Your task to perform on an android device: What's a good restaurant in Phoenix? Image 0: 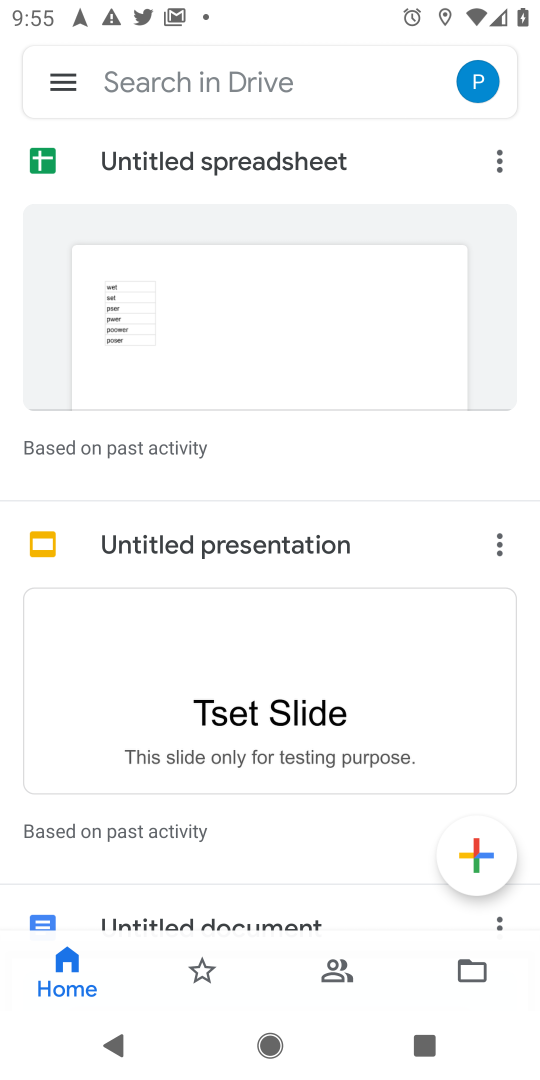
Step 0: press home button
Your task to perform on an android device: What's a good restaurant in Phoenix? Image 1: 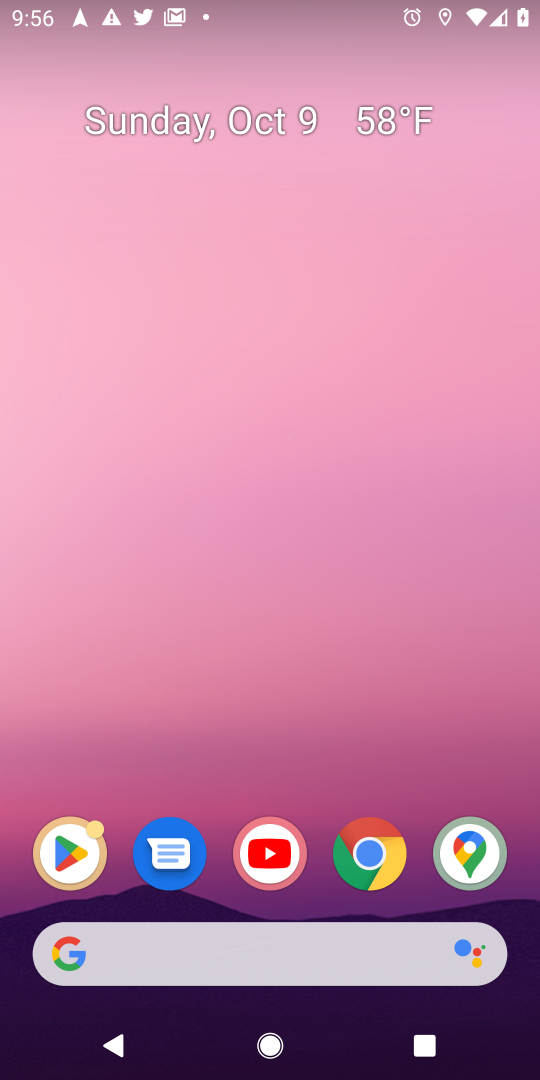
Step 1: click (371, 851)
Your task to perform on an android device: What's a good restaurant in Phoenix? Image 2: 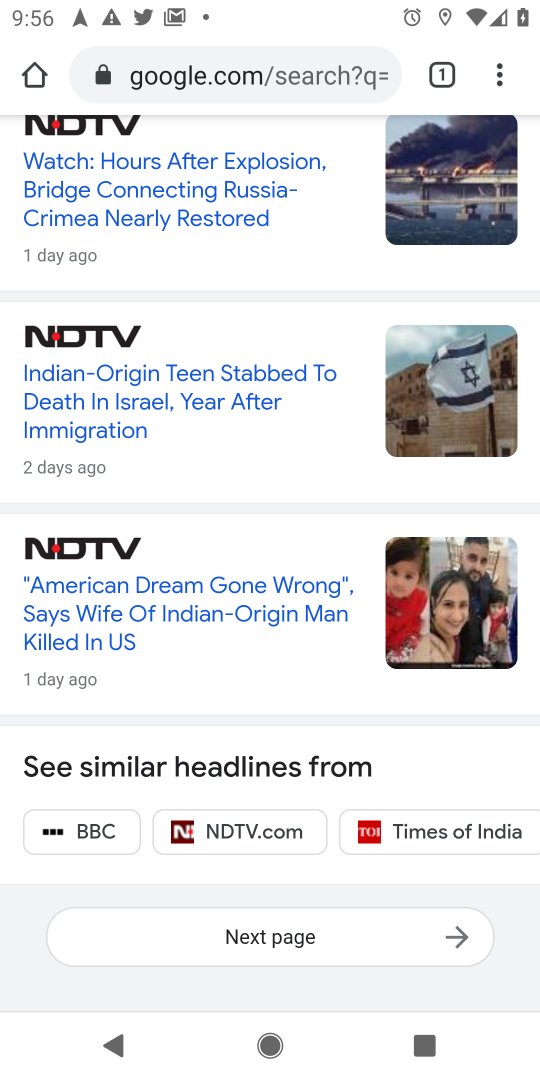
Step 2: click (313, 61)
Your task to perform on an android device: What's a good restaurant in Phoenix? Image 3: 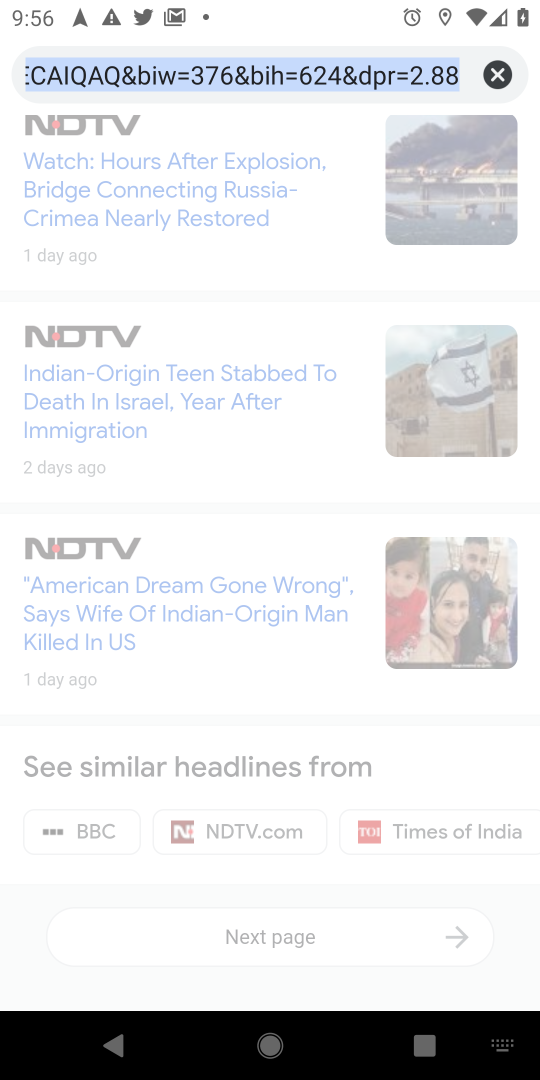
Step 3: type "good restaurant in phoenix"
Your task to perform on an android device: What's a good restaurant in Phoenix? Image 4: 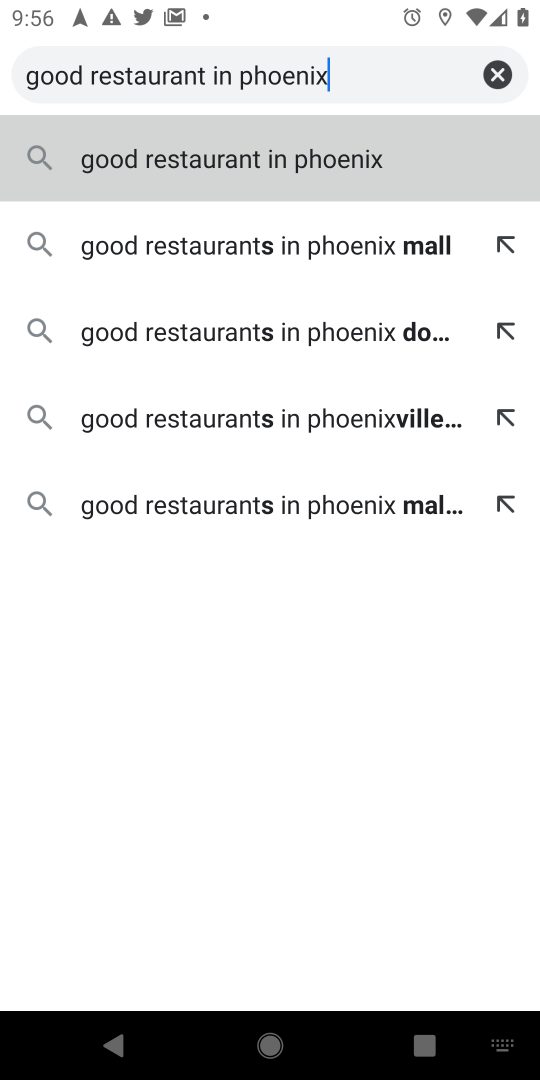
Step 4: click (398, 162)
Your task to perform on an android device: What's a good restaurant in Phoenix? Image 5: 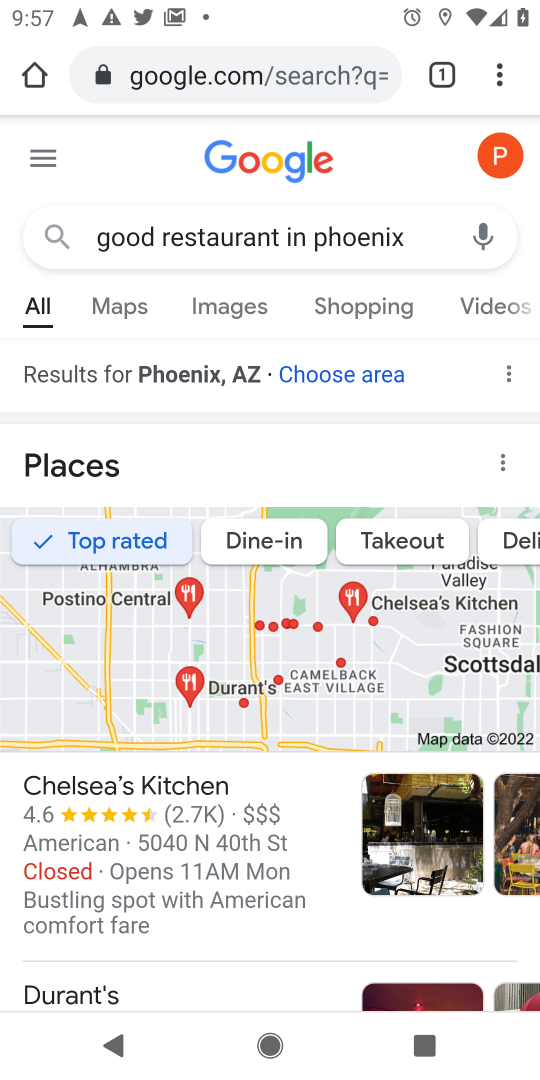
Step 5: task complete